Your task to perform on an android device: Open calendar and show me the third week of next month Image 0: 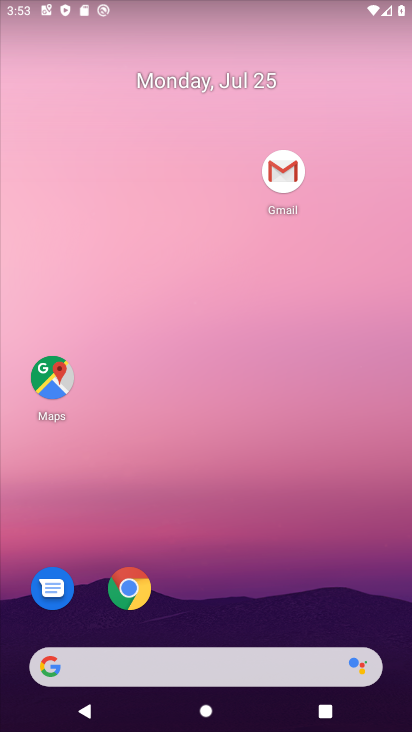
Step 0: drag from (261, 556) to (241, 6)
Your task to perform on an android device: Open calendar and show me the third week of next month Image 1: 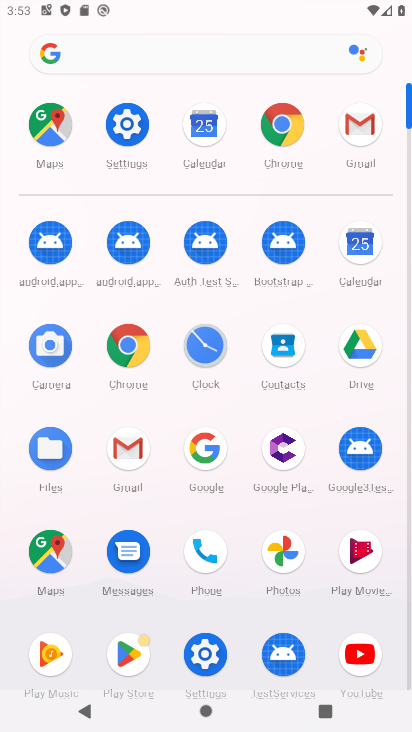
Step 1: click (198, 116)
Your task to perform on an android device: Open calendar and show me the third week of next month Image 2: 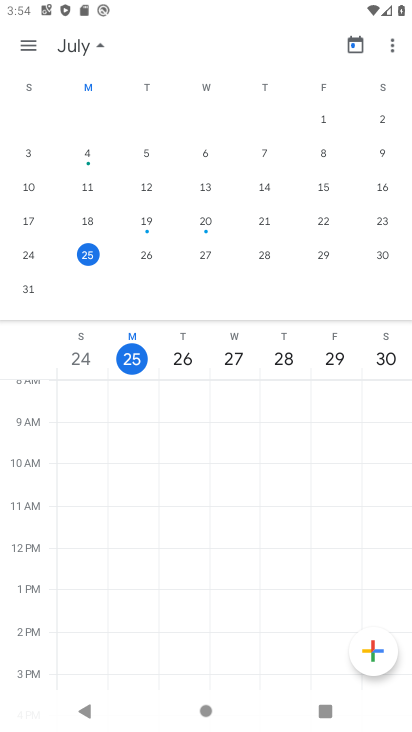
Step 2: drag from (379, 207) to (0, 174)
Your task to perform on an android device: Open calendar and show me the third week of next month Image 3: 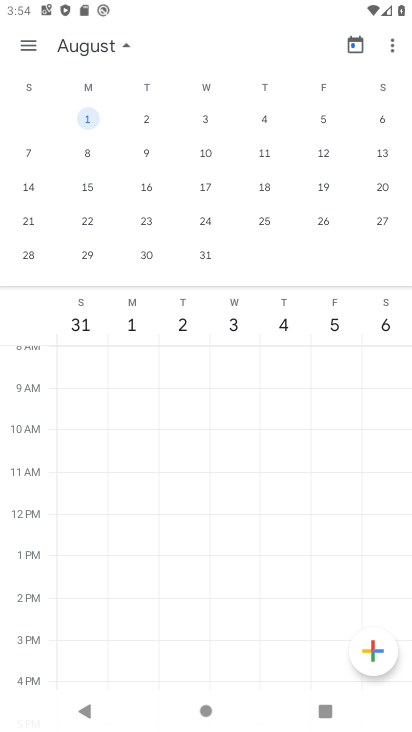
Step 3: click (145, 150)
Your task to perform on an android device: Open calendar and show me the third week of next month Image 4: 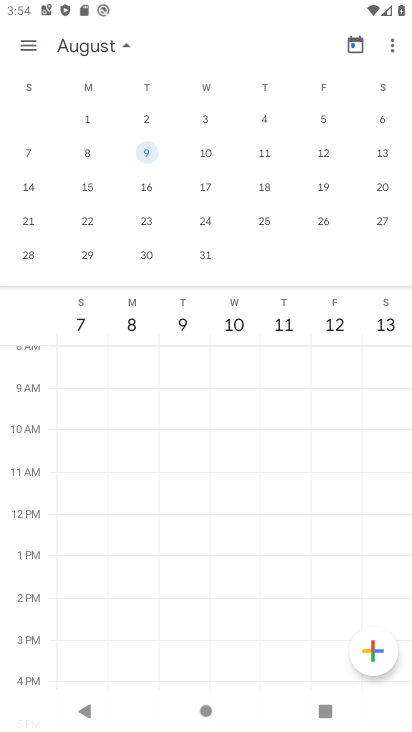
Step 4: task complete